Your task to perform on an android device: toggle notification dots Image 0: 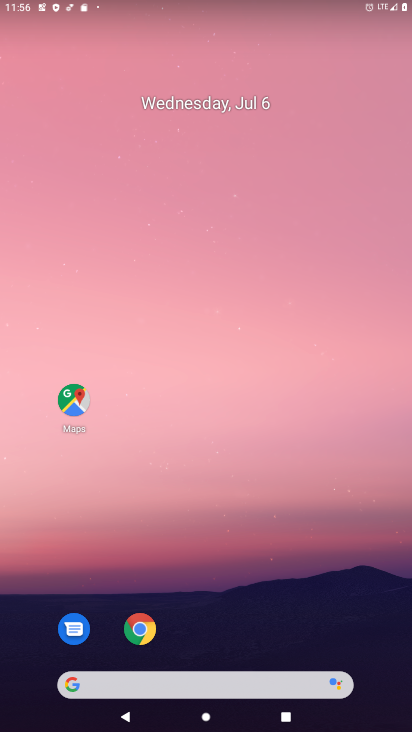
Step 0: drag from (238, 650) to (160, 201)
Your task to perform on an android device: toggle notification dots Image 1: 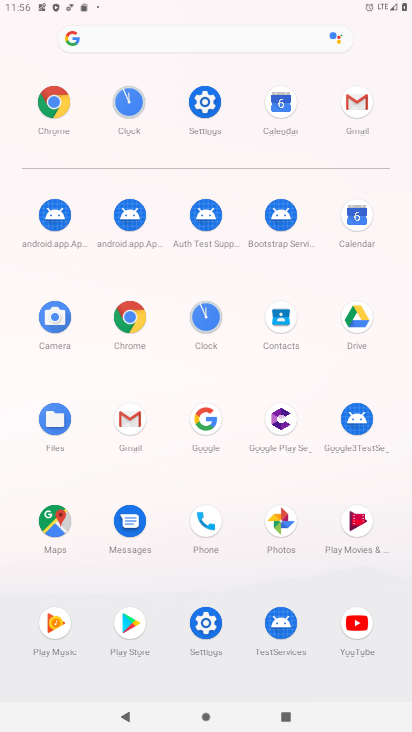
Step 1: click (205, 102)
Your task to perform on an android device: toggle notification dots Image 2: 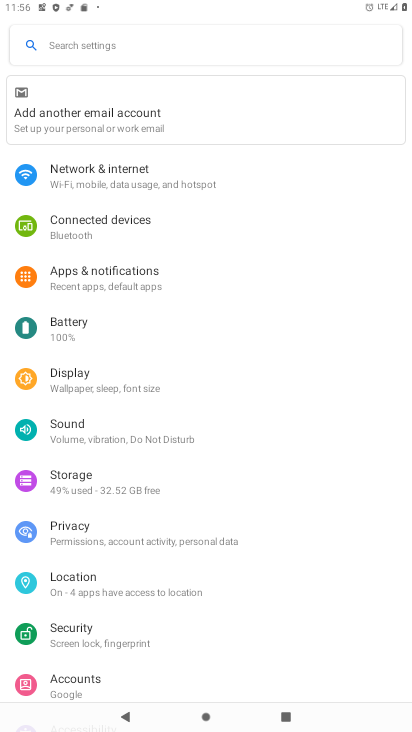
Step 2: click (86, 267)
Your task to perform on an android device: toggle notification dots Image 3: 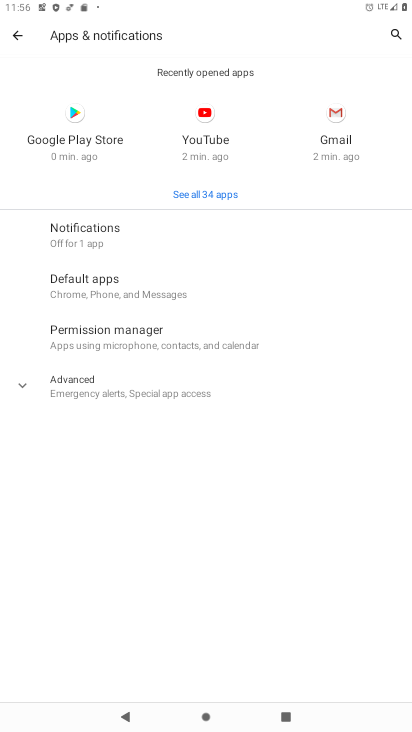
Step 3: click (74, 235)
Your task to perform on an android device: toggle notification dots Image 4: 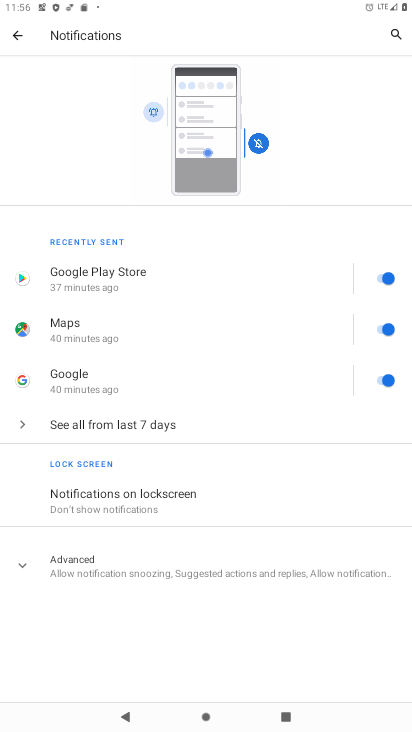
Step 4: click (118, 564)
Your task to perform on an android device: toggle notification dots Image 5: 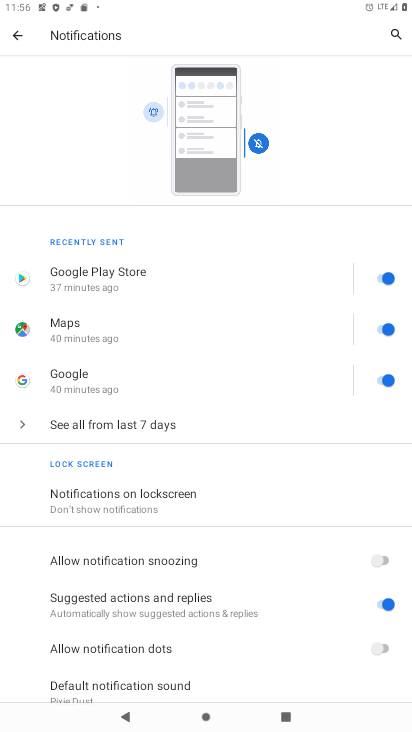
Step 5: click (387, 644)
Your task to perform on an android device: toggle notification dots Image 6: 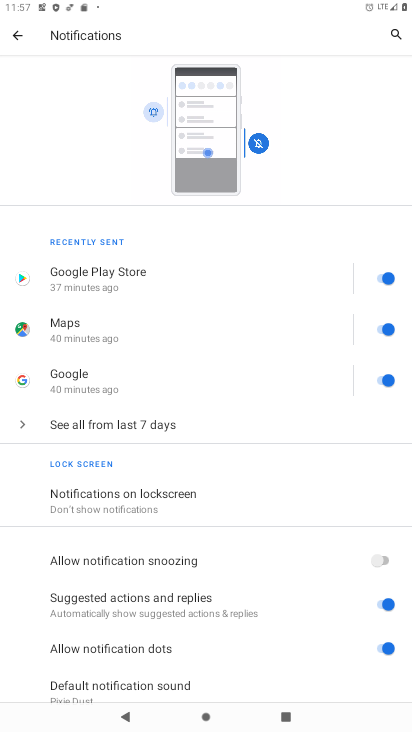
Step 6: task complete